Your task to perform on an android device: turn on bluetooth scan Image 0: 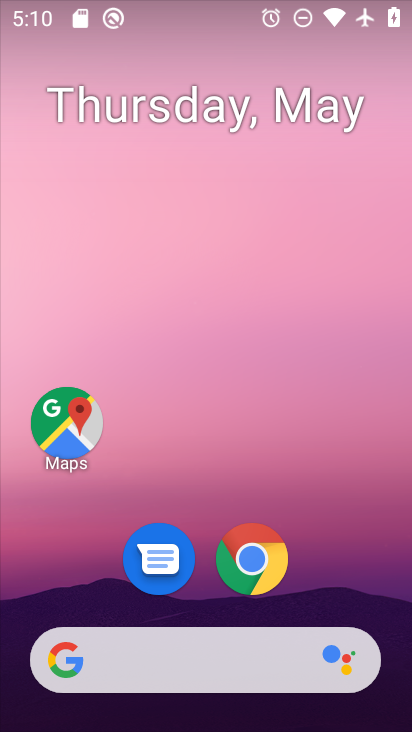
Step 0: click (214, 51)
Your task to perform on an android device: turn on bluetooth scan Image 1: 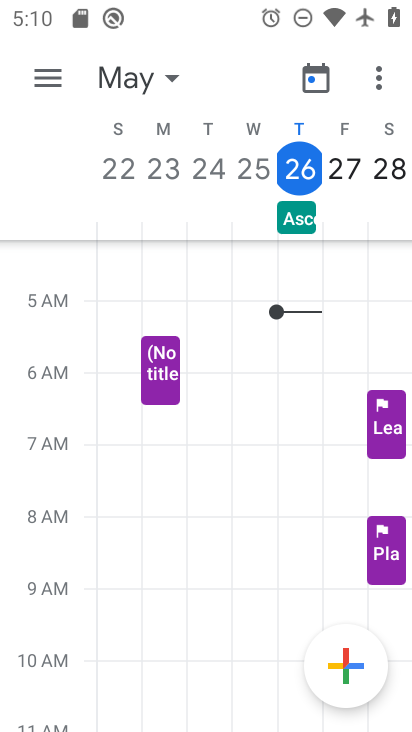
Step 1: press home button
Your task to perform on an android device: turn on bluetooth scan Image 2: 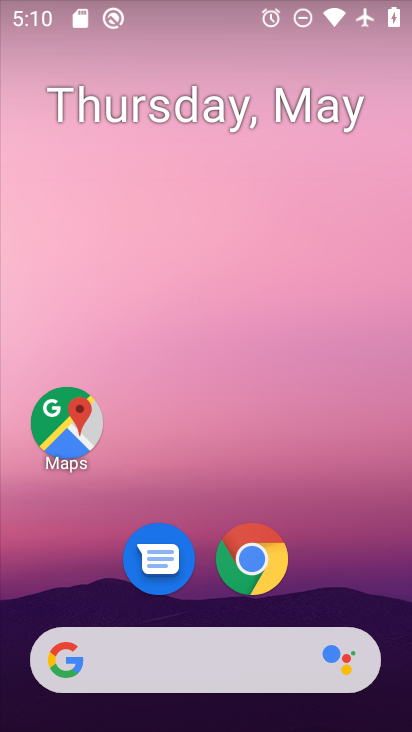
Step 2: drag from (372, 596) to (177, 31)
Your task to perform on an android device: turn on bluetooth scan Image 3: 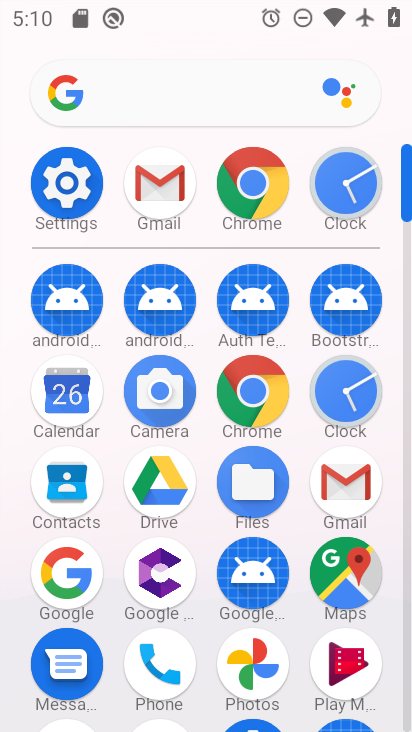
Step 3: click (70, 174)
Your task to perform on an android device: turn on bluetooth scan Image 4: 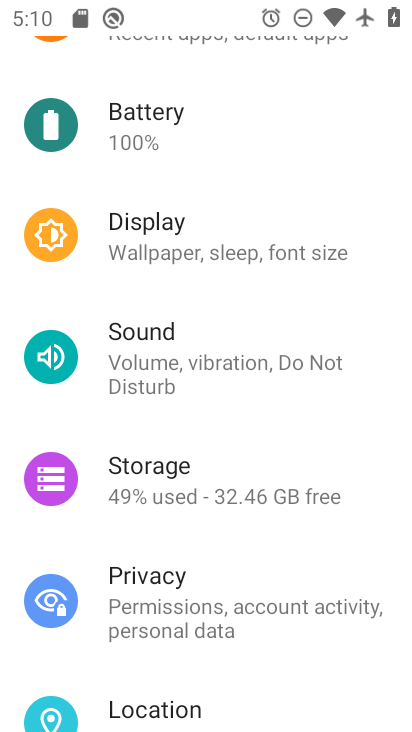
Step 4: drag from (275, 564) to (208, 140)
Your task to perform on an android device: turn on bluetooth scan Image 5: 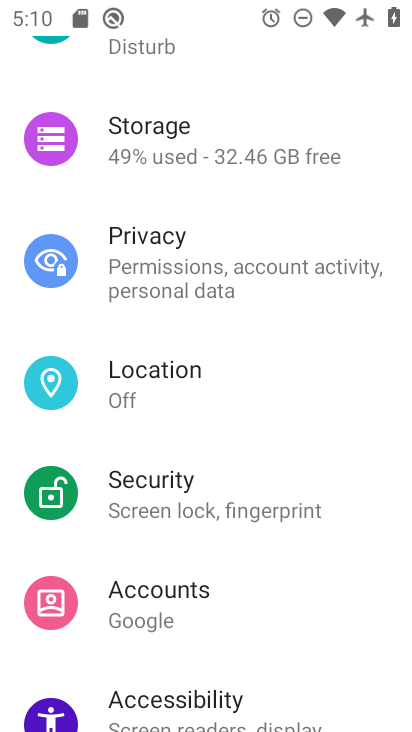
Step 5: click (236, 361)
Your task to perform on an android device: turn on bluetooth scan Image 6: 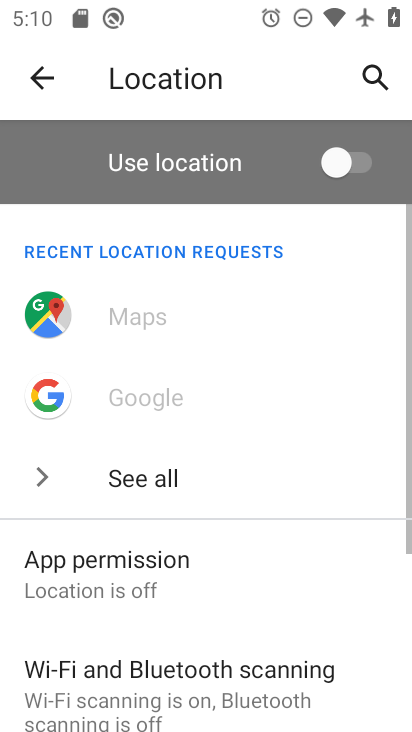
Step 6: drag from (292, 626) to (252, 137)
Your task to perform on an android device: turn on bluetooth scan Image 7: 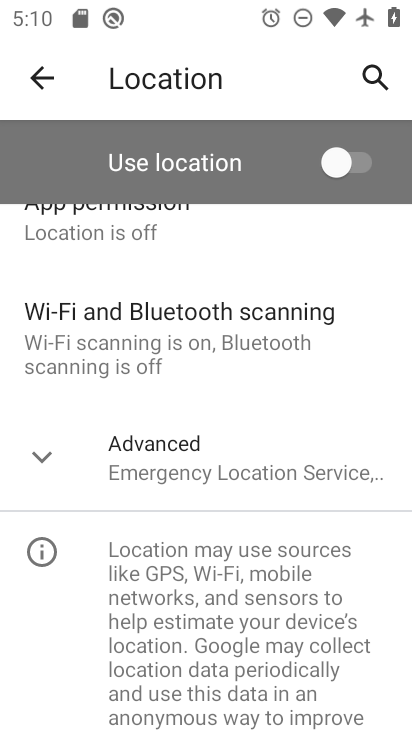
Step 7: click (244, 311)
Your task to perform on an android device: turn on bluetooth scan Image 8: 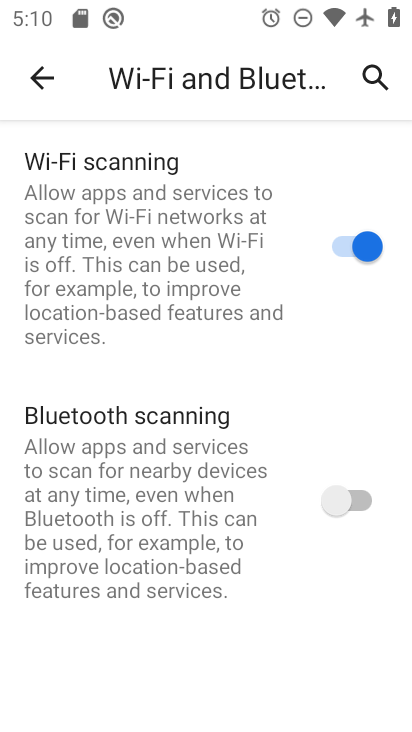
Step 8: click (360, 506)
Your task to perform on an android device: turn on bluetooth scan Image 9: 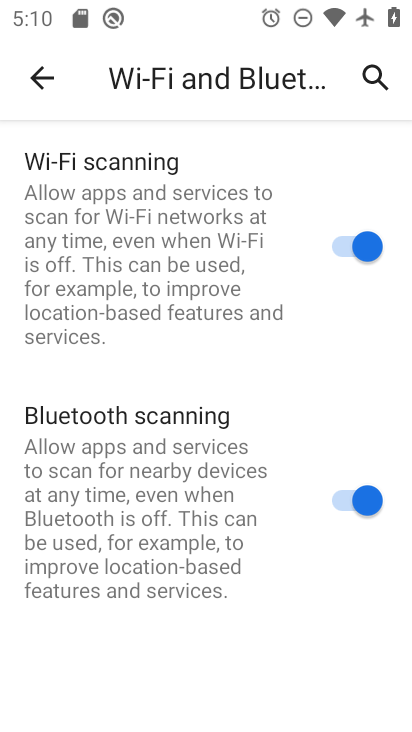
Step 9: task complete